Your task to perform on an android device: Look up the best rated coffee table on Ikea Image 0: 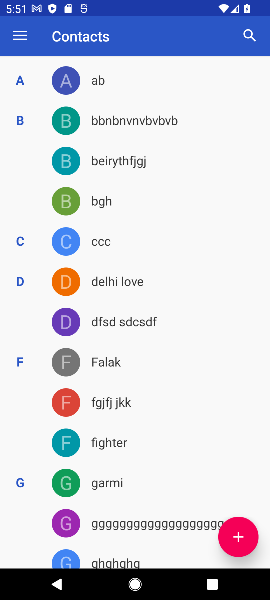
Step 0: press home button
Your task to perform on an android device: Look up the best rated coffee table on Ikea Image 1: 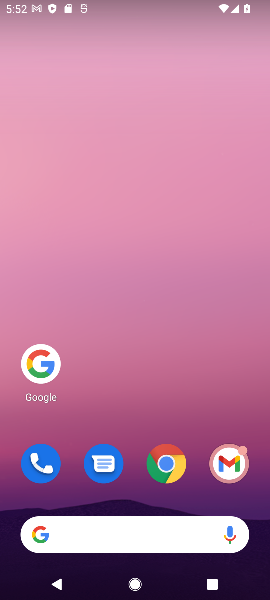
Step 1: click (53, 360)
Your task to perform on an android device: Look up the best rated coffee table on Ikea Image 2: 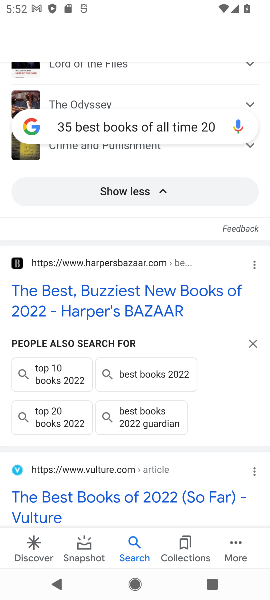
Step 2: click (161, 117)
Your task to perform on an android device: Look up the best rated coffee table on Ikea Image 3: 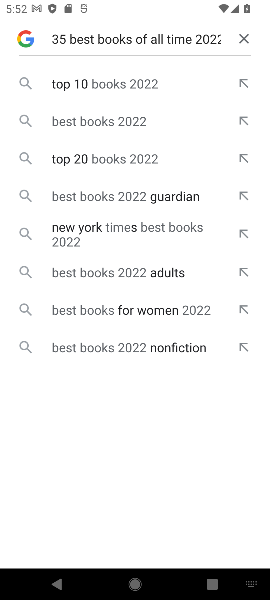
Step 3: click (244, 37)
Your task to perform on an android device: Look up the best rated coffee table on Ikea Image 4: 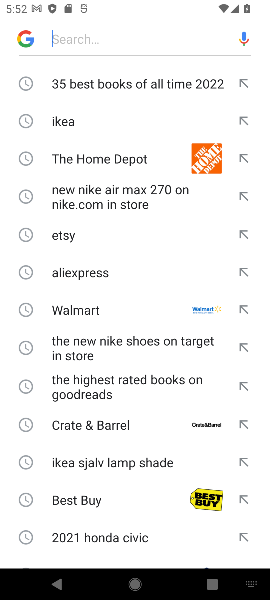
Step 4: click (145, 33)
Your task to perform on an android device: Look up the best rated coffee table on Ikea Image 5: 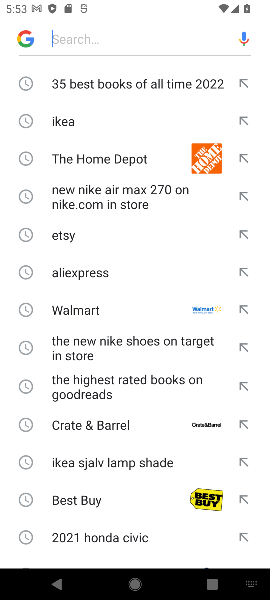
Step 5: type "the best rated coffee table on Ikea "
Your task to perform on an android device: Look up the best rated coffee table on Ikea Image 6: 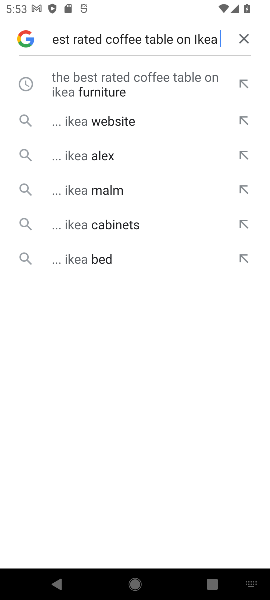
Step 6: click (109, 90)
Your task to perform on an android device: Look up the best rated coffee table on Ikea Image 7: 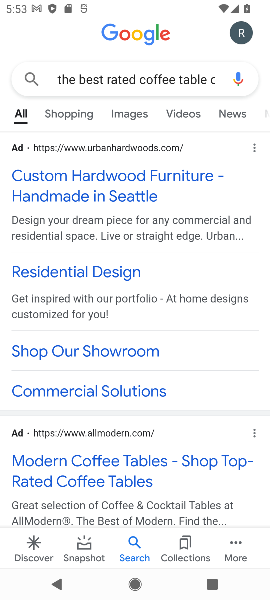
Step 7: drag from (103, 484) to (154, 190)
Your task to perform on an android device: Look up the best rated coffee table on Ikea Image 8: 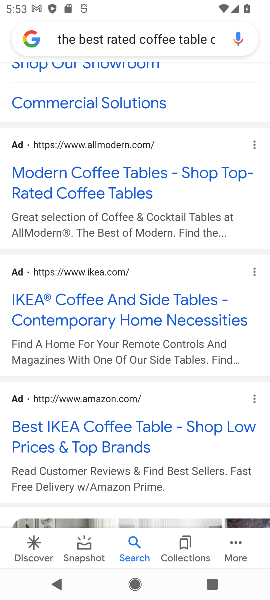
Step 8: click (105, 433)
Your task to perform on an android device: Look up the best rated coffee table on Ikea Image 9: 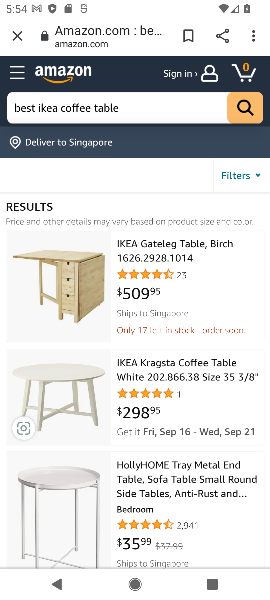
Step 9: task complete